Your task to perform on an android device: check storage Image 0: 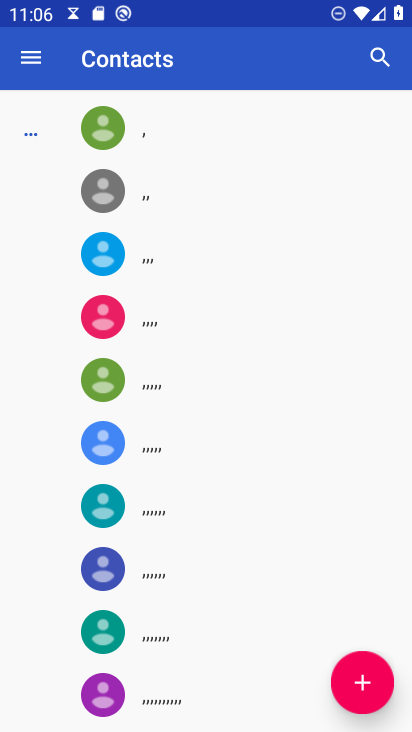
Step 0: press home button
Your task to perform on an android device: check storage Image 1: 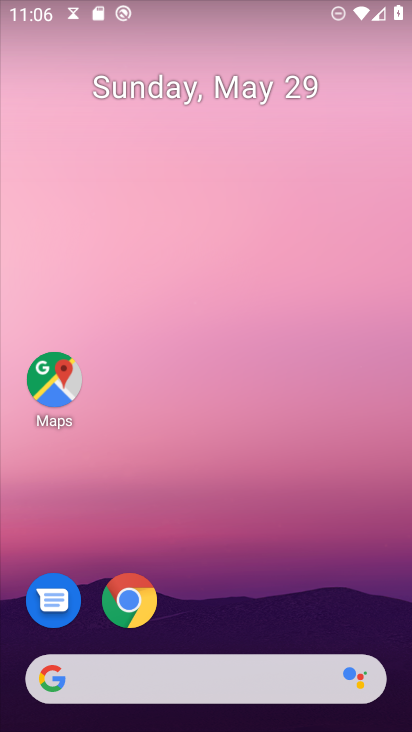
Step 1: drag from (236, 724) to (239, 213)
Your task to perform on an android device: check storage Image 2: 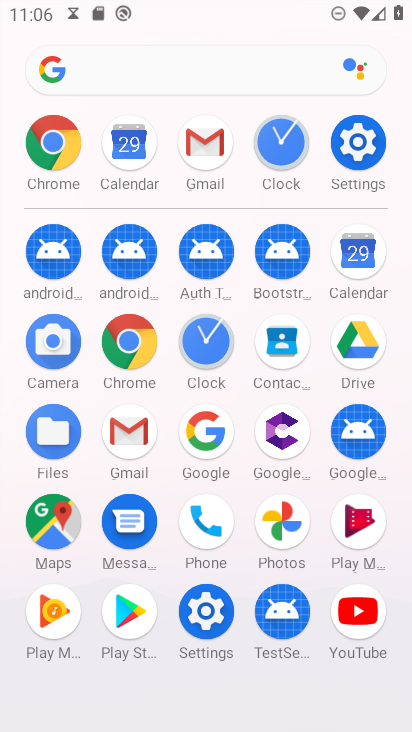
Step 2: click (357, 140)
Your task to perform on an android device: check storage Image 3: 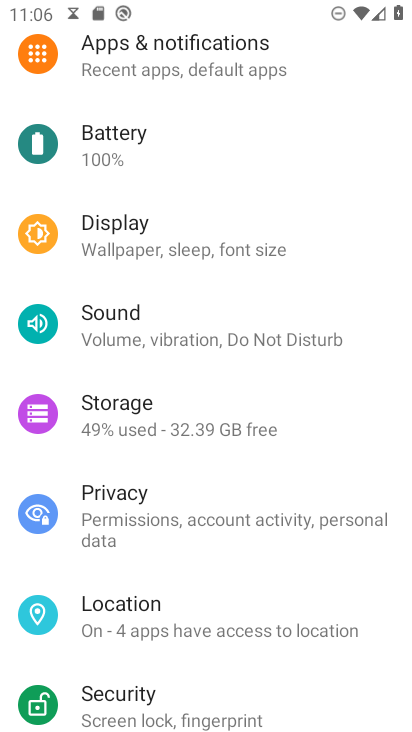
Step 3: click (129, 412)
Your task to perform on an android device: check storage Image 4: 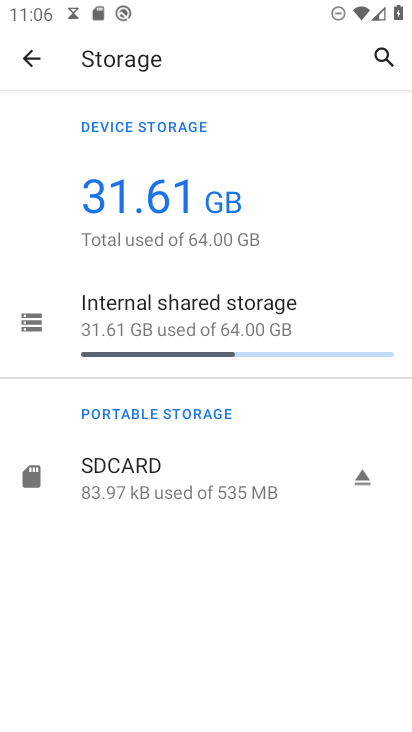
Step 4: task complete